Your task to perform on an android device: Go to sound settings Image 0: 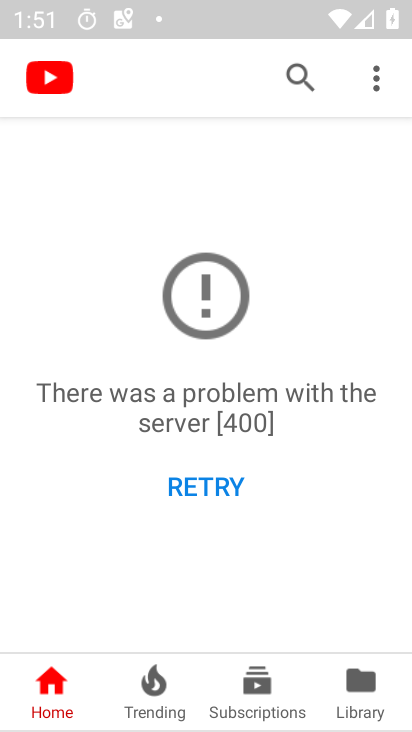
Step 0: press home button
Your task to perform on an android device: Go to sound settings Image 1: 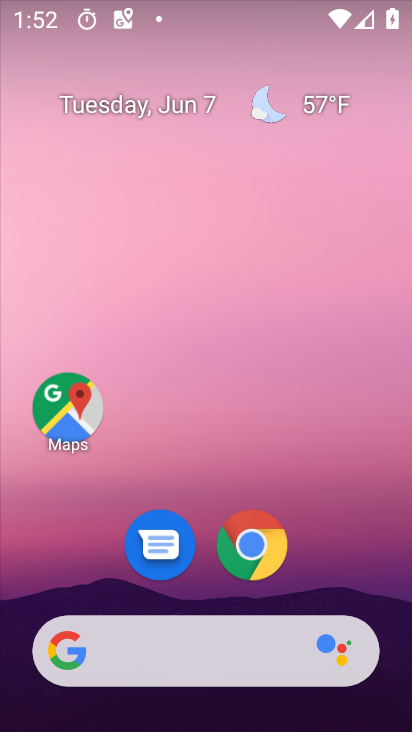
Step 1: drag from (359, 430) to (272, 14)
Your task to perform on an android device: Go to sound settings Image 2: 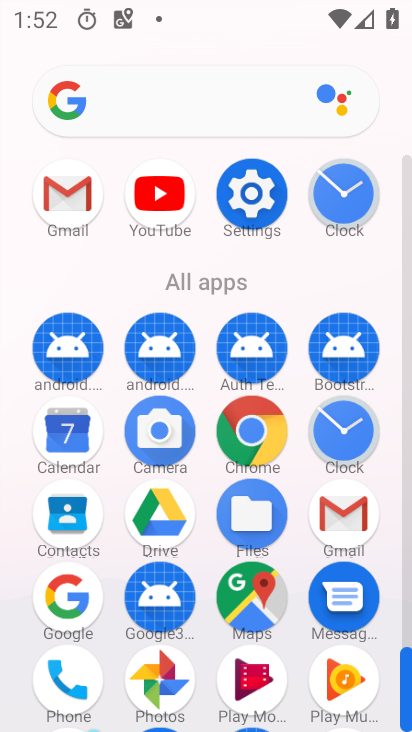
Step 2: click (261, 206)
Your task to perform on an android device: Go to sound settings Image 3: 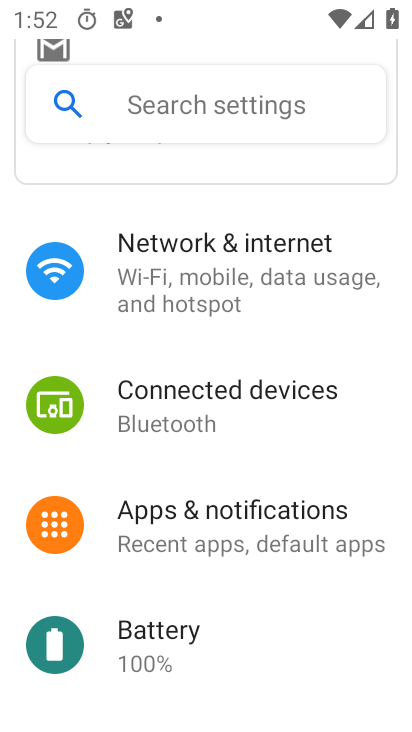
Step 3: drag from (295, 621) to (274, 97)
Your task to perform on an android device: Go to sound settings Image 4: 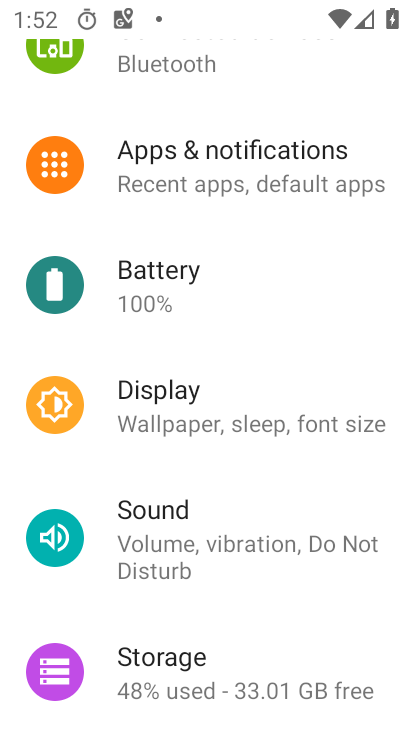
Step 4: click (218, 525)
Your task to perform on an android device: Go to sound settings Image 5: 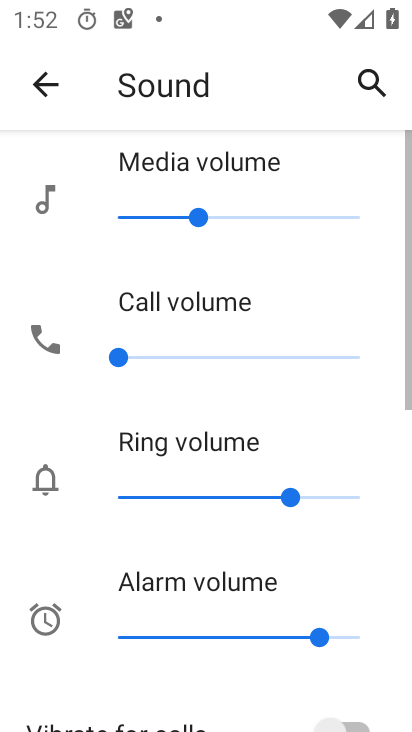
Step 5: task complete